Your task to perform on an android device: refresh tabs in the chrome app Image 0: 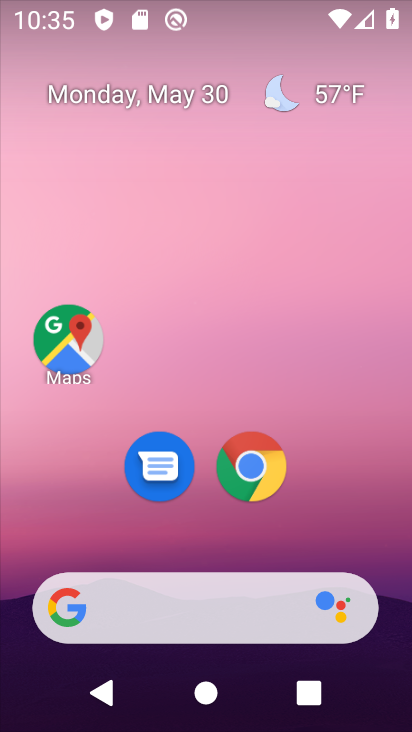
Step 0: click (241, 448)
Your task to perform on an android device: refresh tabs in the chrome app Image 1: 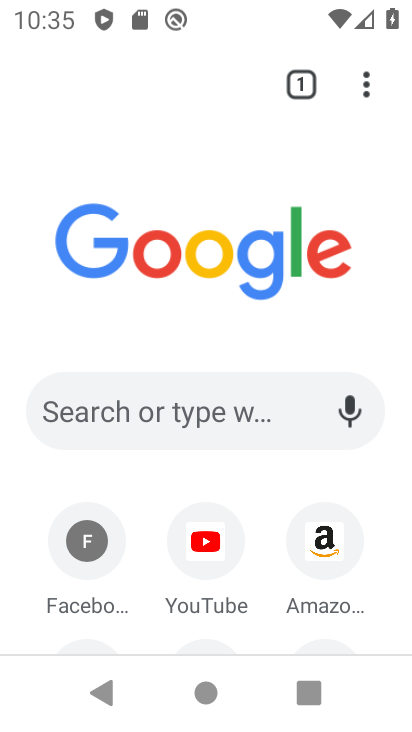
Step 1: click (368, 72)
Your task to perform on an android device: refresh tabs in the chrome app Image 2: 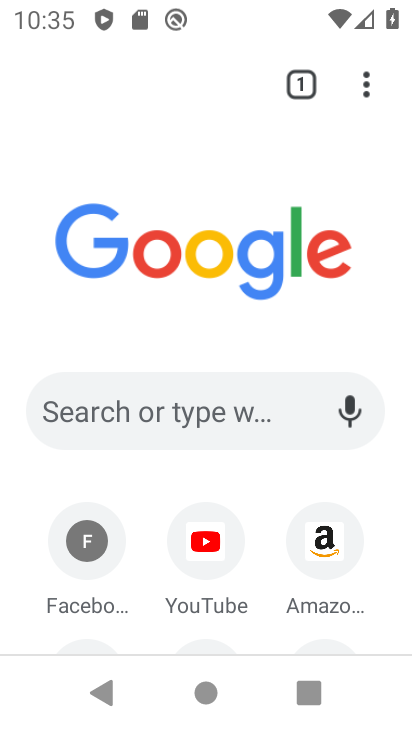
Step 2: click (376, 89)
Your task to perform on an android device: refresh tabs in the chrome app Image 3: 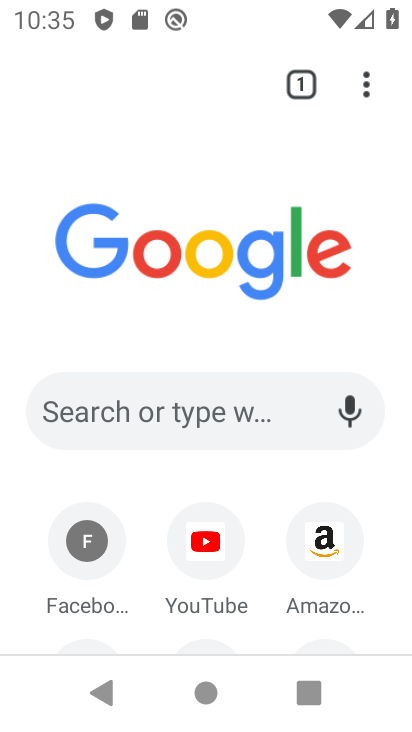
Step 3: click (367, 90)
Your task to perform on an android device: refresh tabs in the chrome app Image 4: 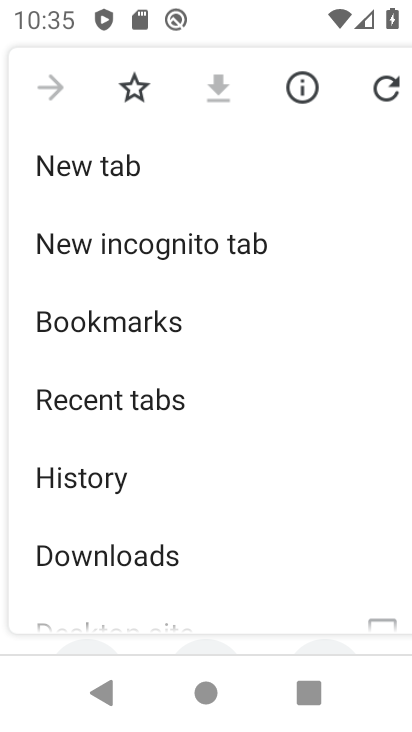
Step 4: click (367, 90)
Your task to perform on an android device: refresh tabs in the chrome app Image 5: 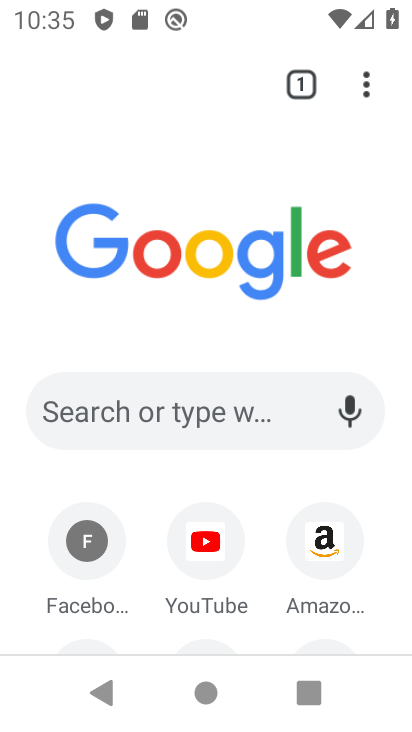
Step 5: click (369, 86)
Your task to perform on an android device: refresh tabs in the chrome app Image 6: 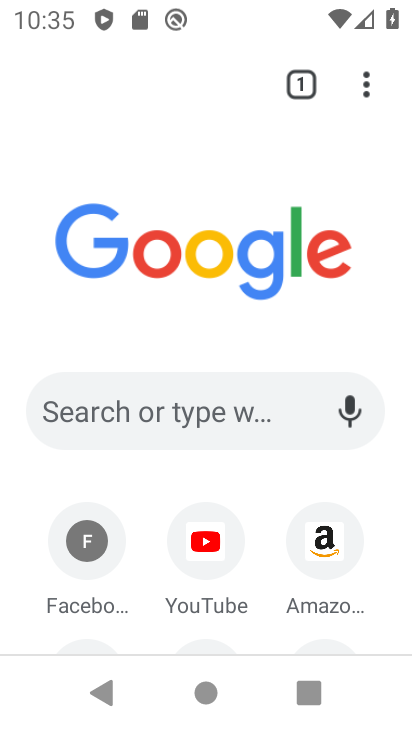
Step 6: task complete